Your task to perform on an android device: read, delete, or share a saved page in the chrome app Image 0: 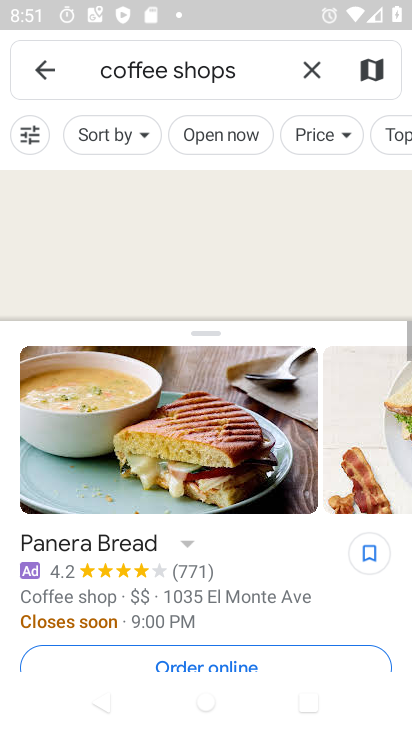
Step 0: press home button
Your task to perform on an android device: read, delete, or share a saved page in the chrome app Image 1: 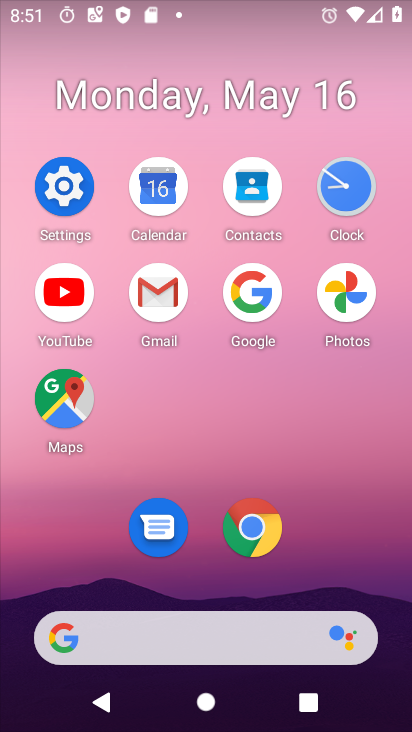
Step 1: click (268, 526)
Your task to perform on an android device: read, delete, or share a saved page in the chrome app Image 2: 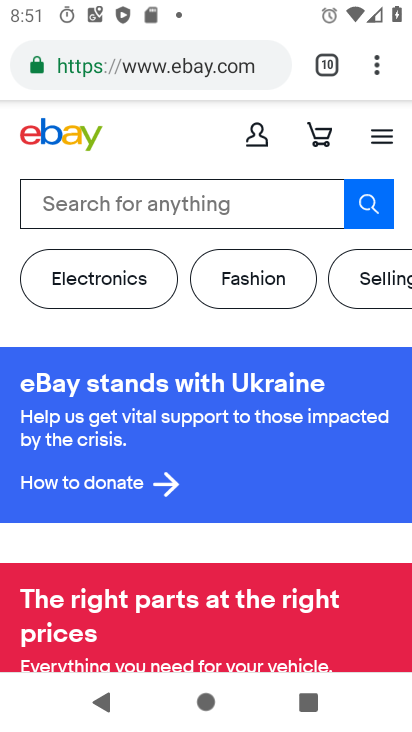
Step 2: click (379, 64)
Your task to perform on an android device: read, delete, or share a saved page in the chrome app Image 3: 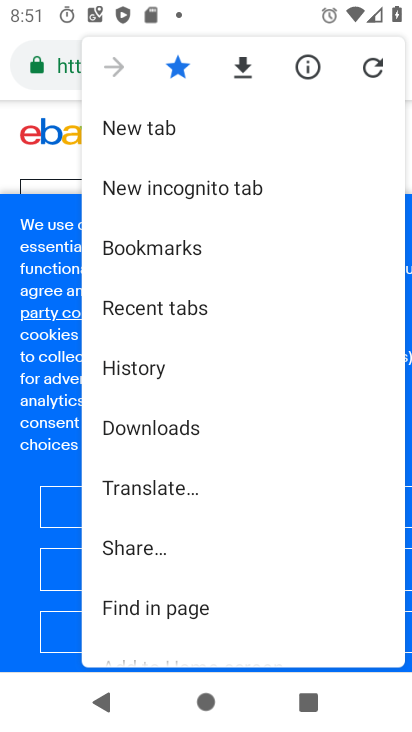
Step 3: click (211, 429)
Your task to perform on an android device: read, delete, or share a saved page in the chrome app Image 4: 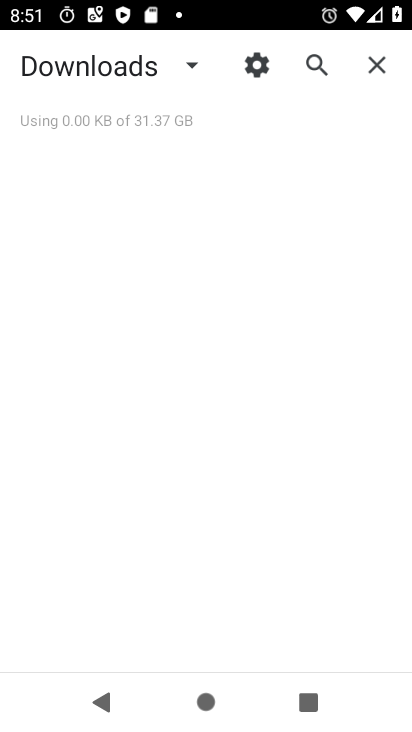
Step 4: task complete